Your task to perform on an android device: change the clock display to digital Image 0: 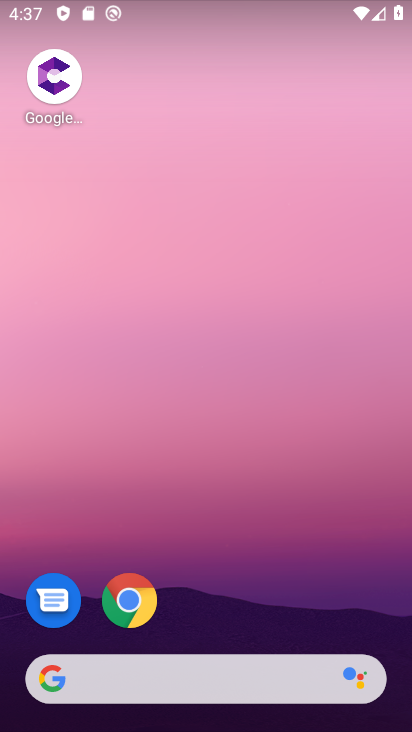
Step 0: drag from (234, 338) to (255, 112)
Your task to perform on an android device: change the clock display to digital Image 1: 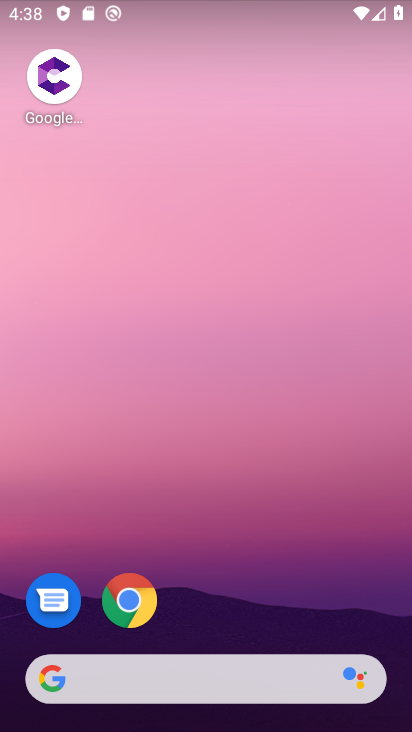
Step 1: drag from (224, 494) to (275, 34)
Your task to perform on an android device: change the clock display to digital Image 2: 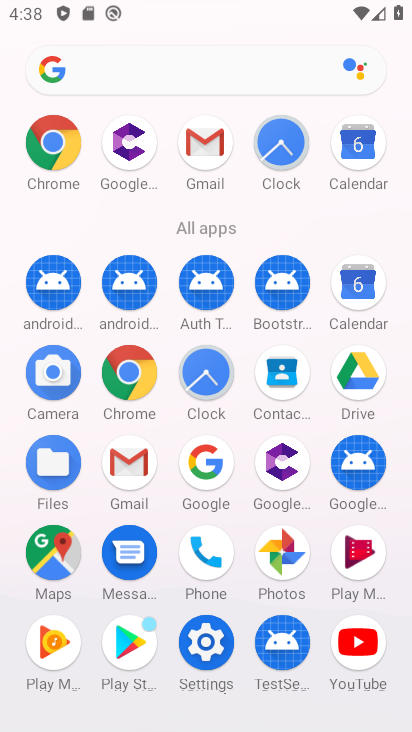
Step 2: click (198, 382)
Your task to perform on an android device: change the clock display to digital Image 3: 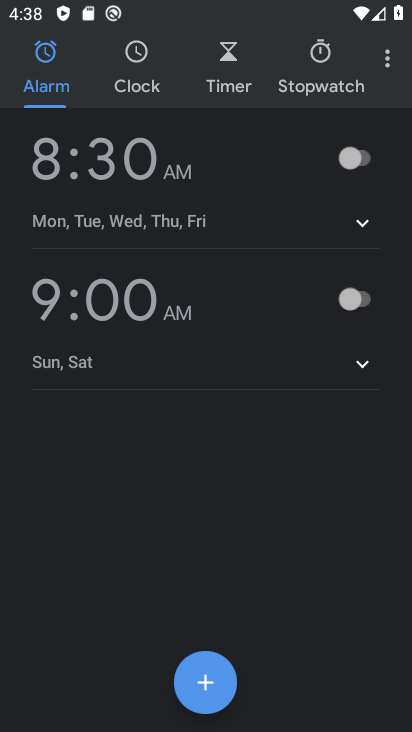
Step 3: click (381, 55)
Your task to perform on an android device: change the clock display to digital Image 4: 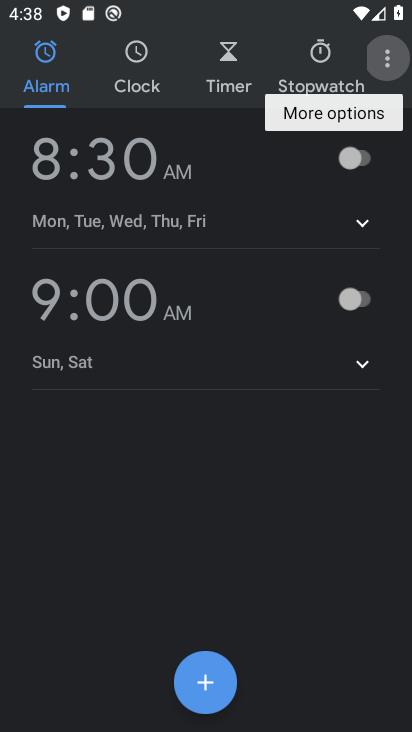
Step 4: click (378, 58)
Your task to perform on an android device: change the clock display to digital Image 5: 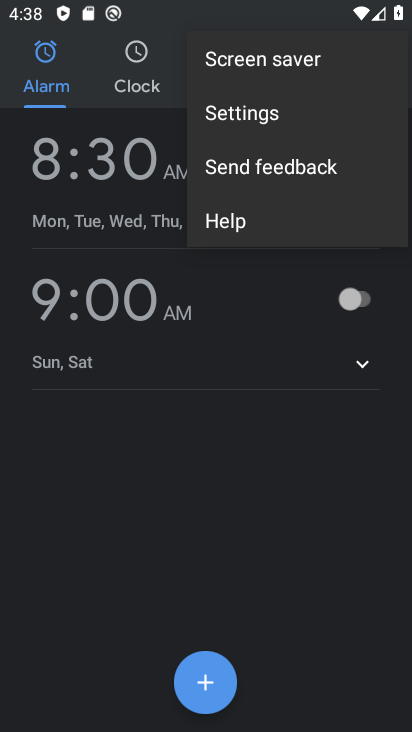
Step 5: click (306, 108)
Your task to perform on an android device: change the clock display to digital Image 6: 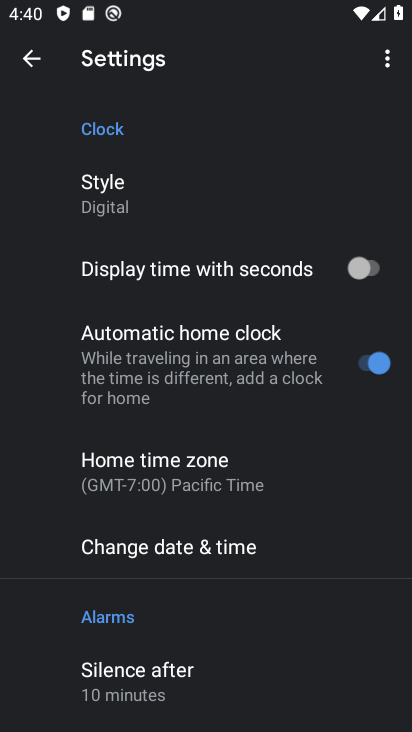
Step 6: task complete